Your task to perform on an android device: install app "Facebook Lite" Image 0: 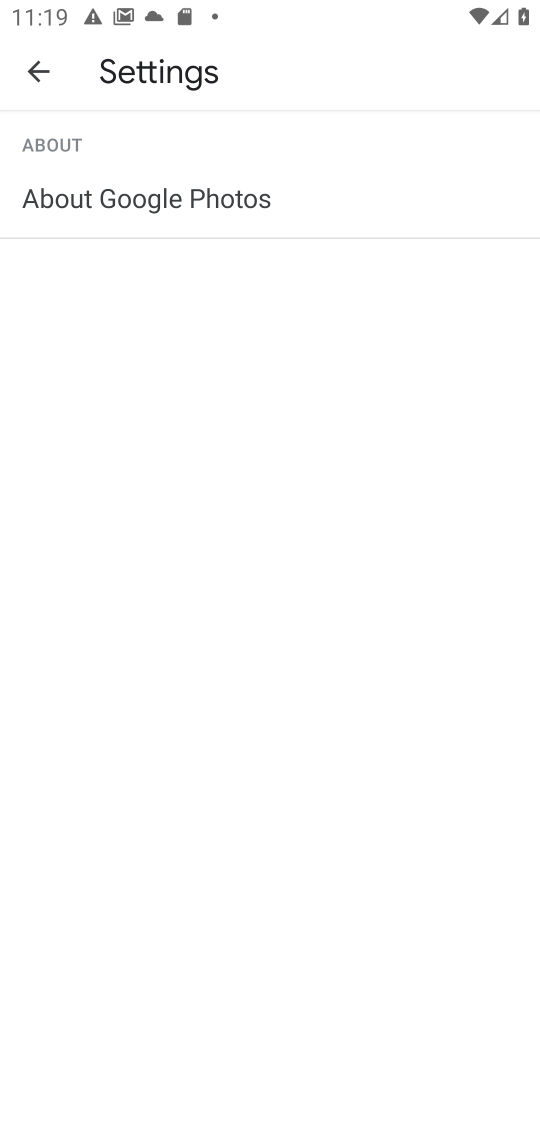
Step 0: press home button
Your task to perform on an android device: install app "Facebook Lite" Image 1: 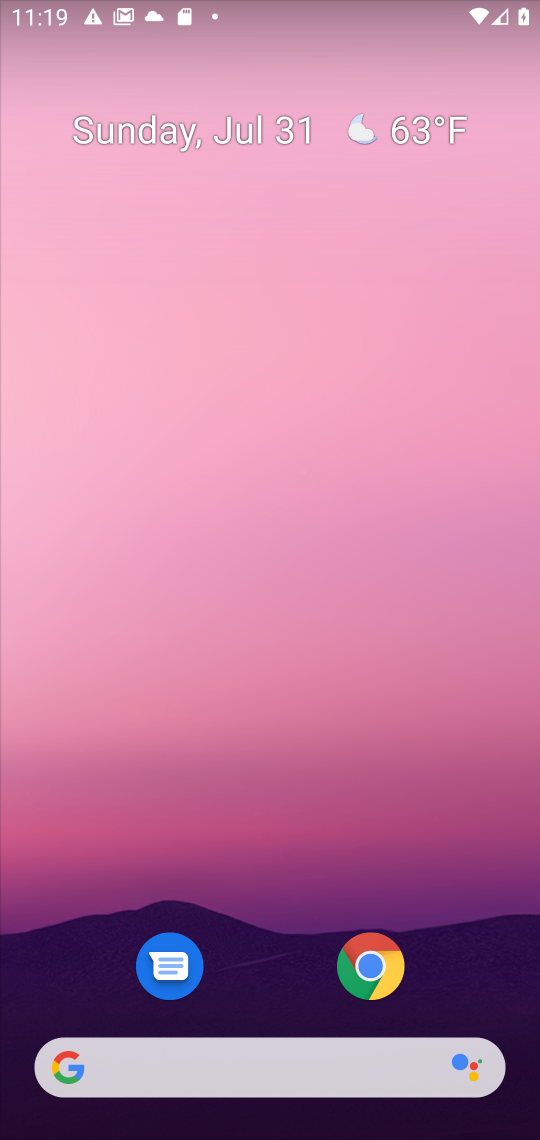
Step 1: drag from (235, 491) to (303, 6)
Your task to perform on an android device: install app "Facebook Lite" Image 2: 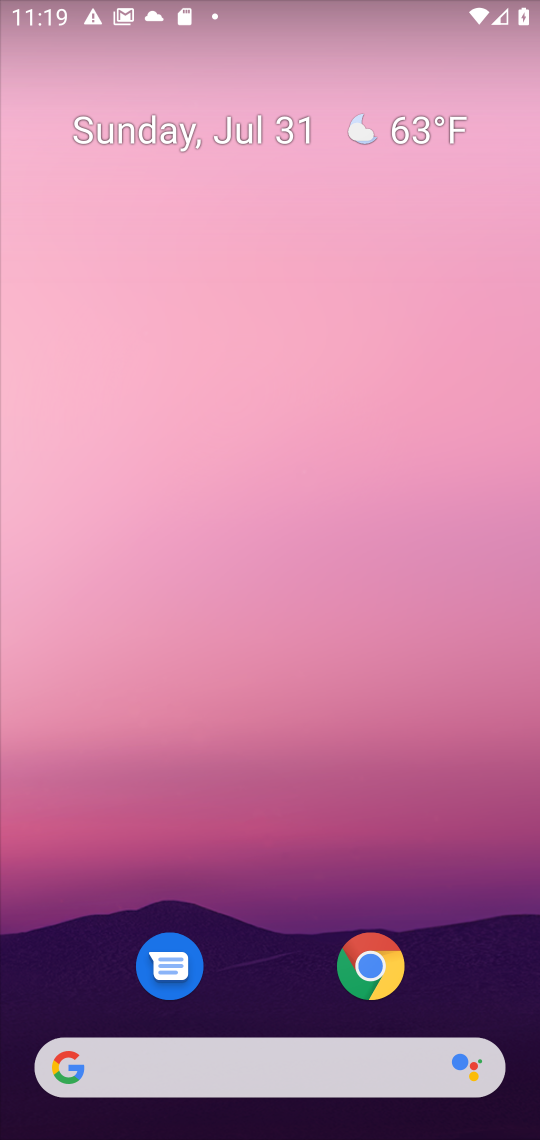
Step 2: drag from (270, 977) to (407, 5)
Your task to perform on an android device: install app "Facebook Lite" Image 3: 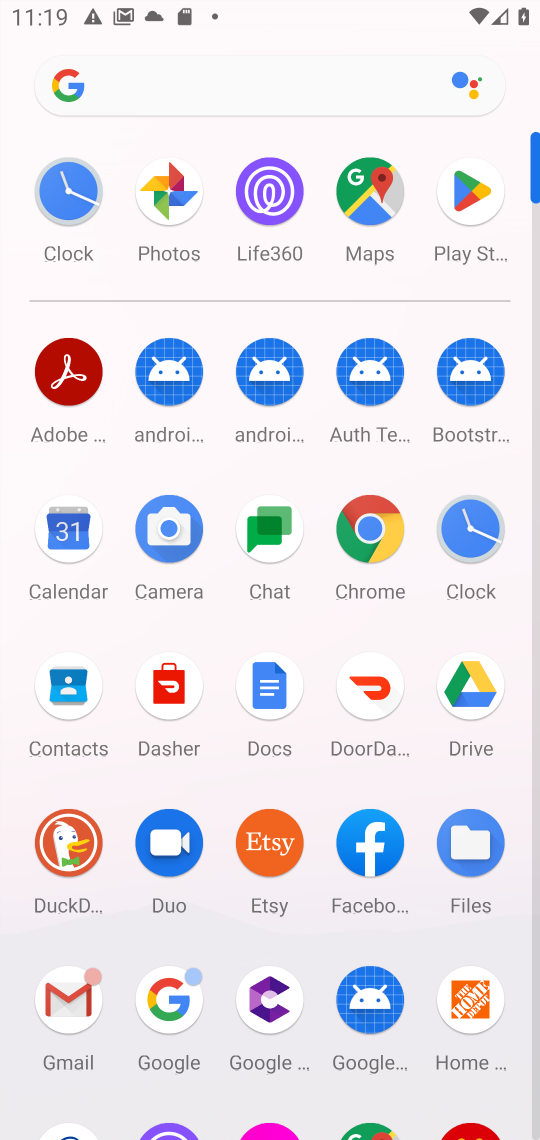
Step 3: click (482, 265)
Your task to perform on an android device: install app "Facebook Lite" Image 4: 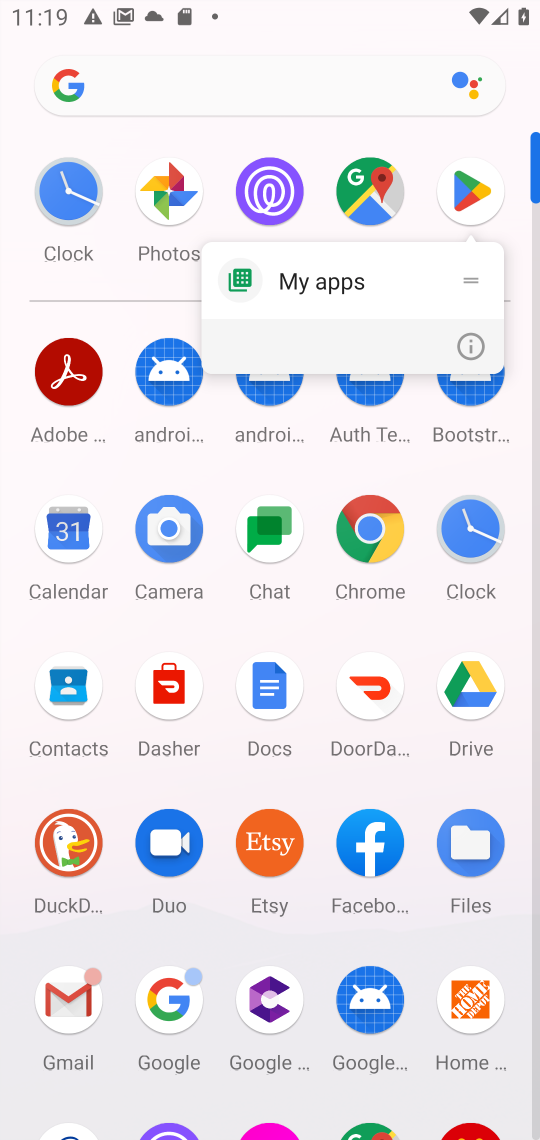
Step 4: click (496, 166)
Your task to perform on an android device: install app "Facebook Lite" Image 5: 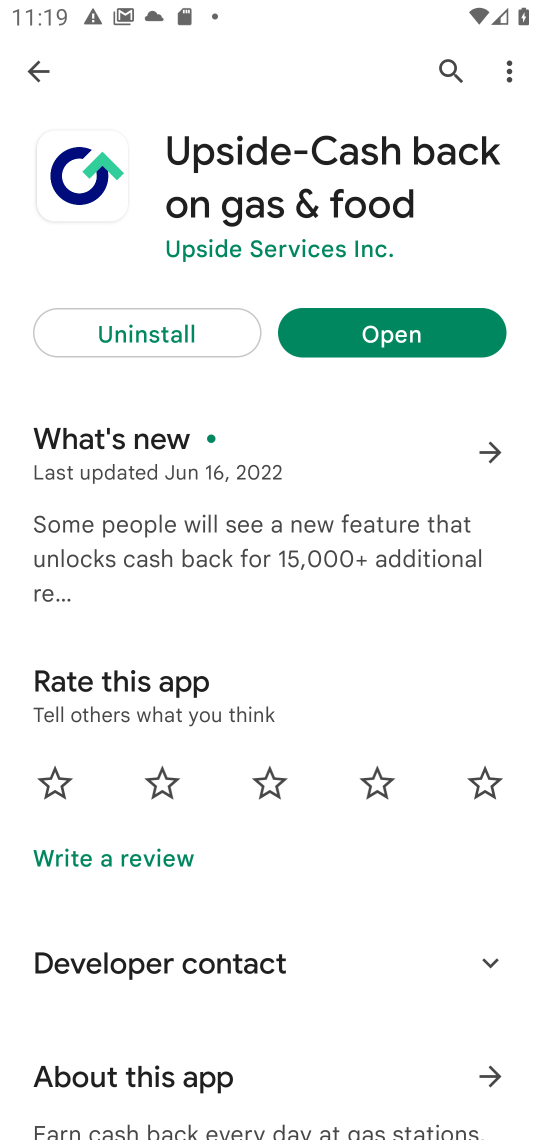
Step 5: click (21, 68)
Your task to perform on an android device: install app "Facebook Lite" Image 6: 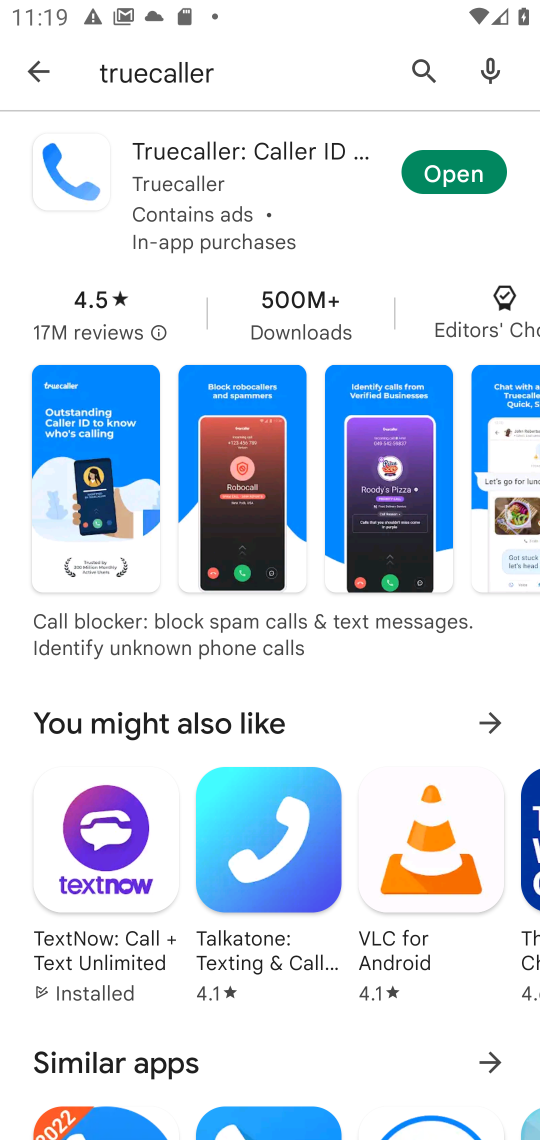
Step 6: click (256, 77)
Your task to perform on an android device: install app "Facebook Lite" Image 7: 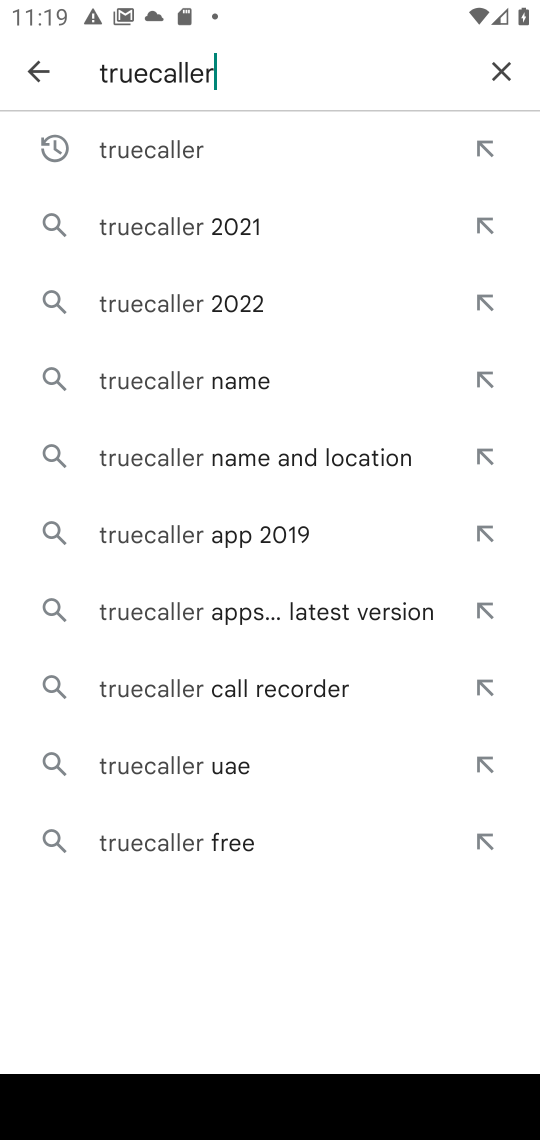
Step 7: click (491, 72)
Your task to perform on an android device: install app "Facebook Lite" Image 8: 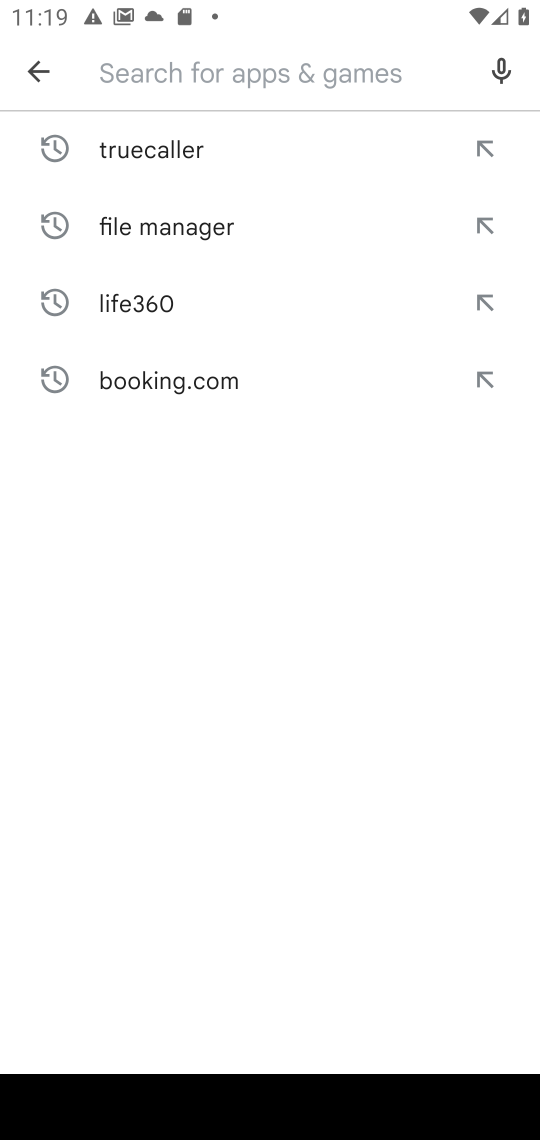
Step 8: type "facebook lite"
Your task to perform on an android device: install app "Facebook Lite" Image 9: 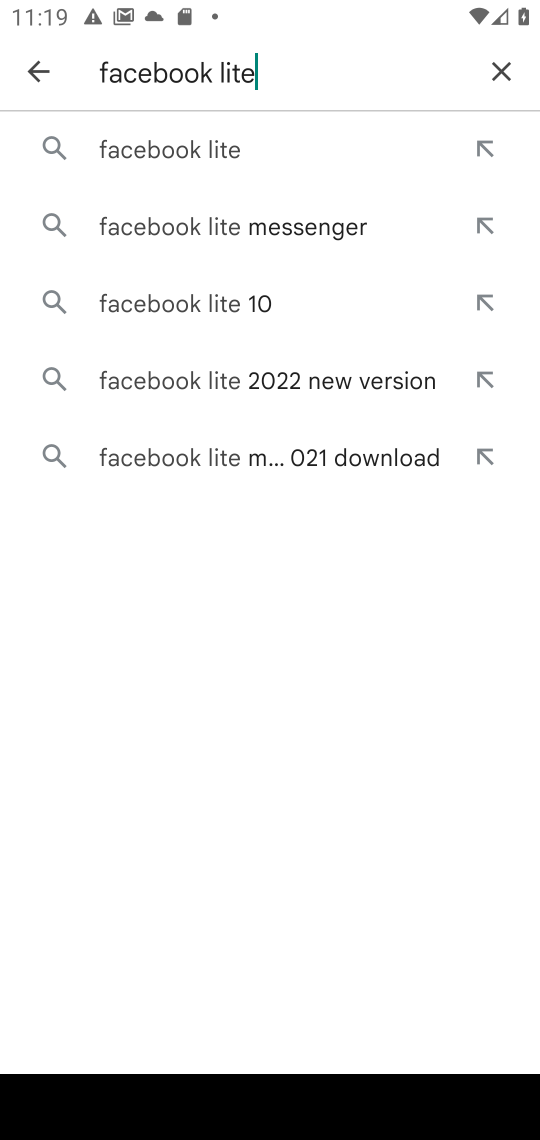
Step 9: click (172, 166)
Your task to perform on an android device: install app "Facebook Lite" Image 10: 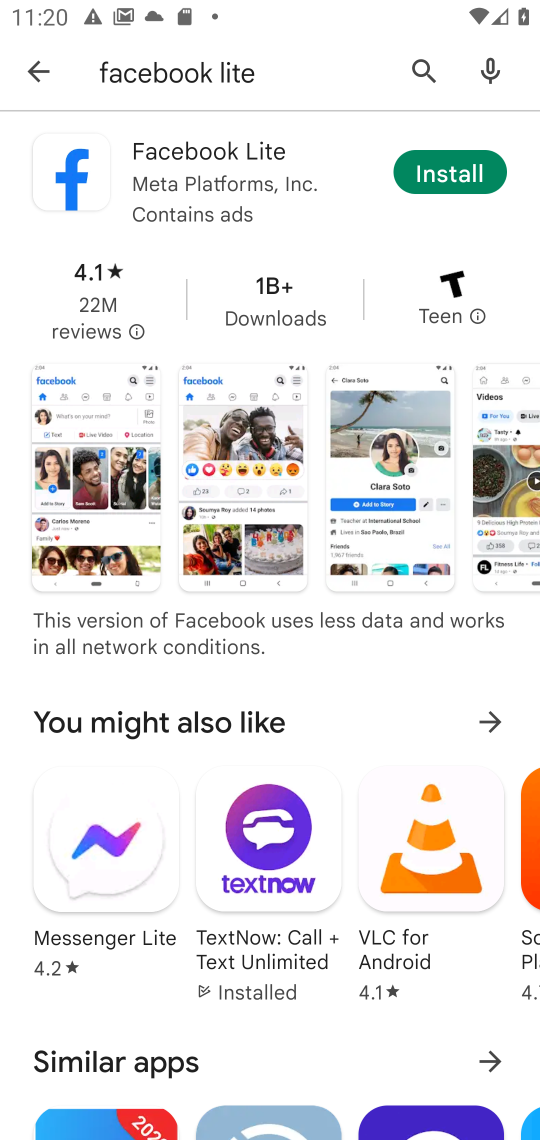
Step 10: click (449, 176)
Your task to perform on an android device: install app "Facebook Lite" Image 11: 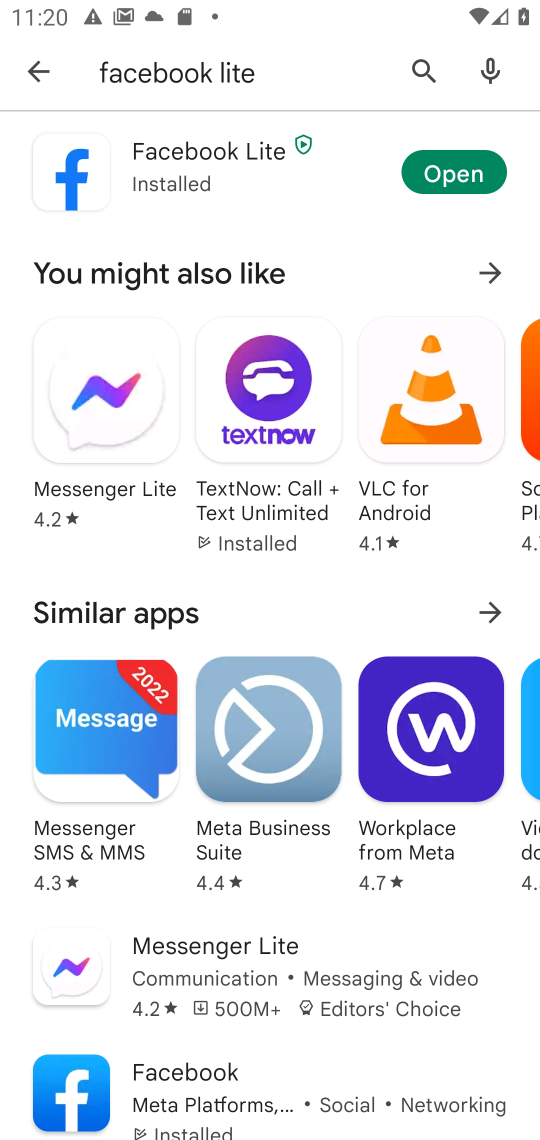
Step 11: task complete